Your task to perform on an android device: turn on priority inbox in the gmail app Image 0: 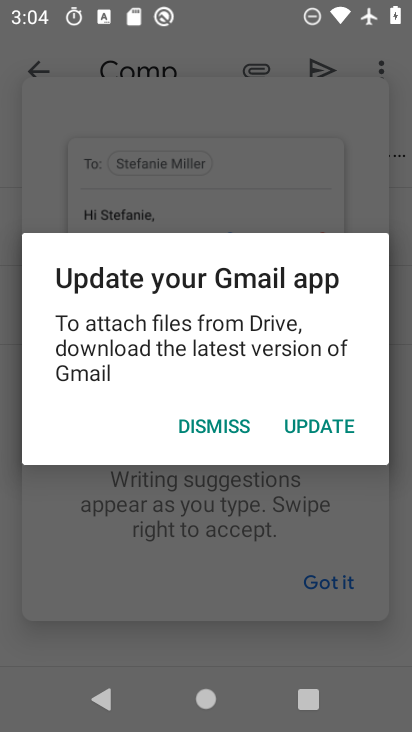
Step 0: press home button
Your task to perform on an android device: turn on priority inbox in the gmail app Image 1: 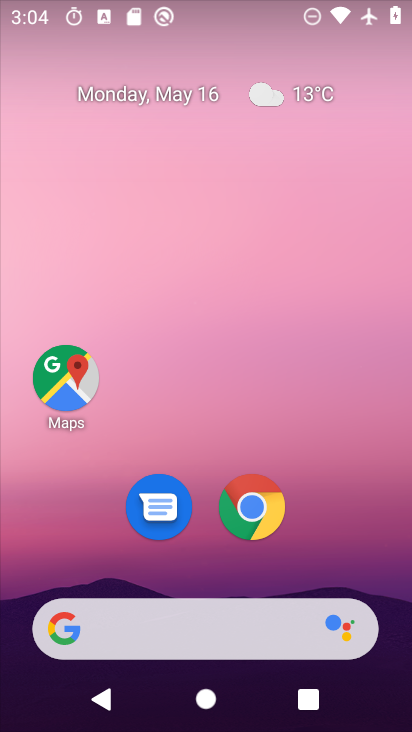
Step 1: drag from (339, 537) to (330, 145)
Your task to perform on an android device: turn on priority inbox in the gmail app Image 2: 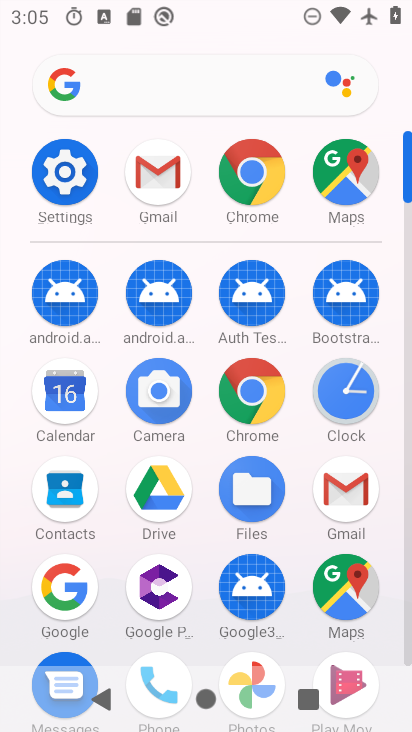
Step 2: click (351, 498)
Your task to perform on an android device: turn on priority inbox in the gmail app Image 3: 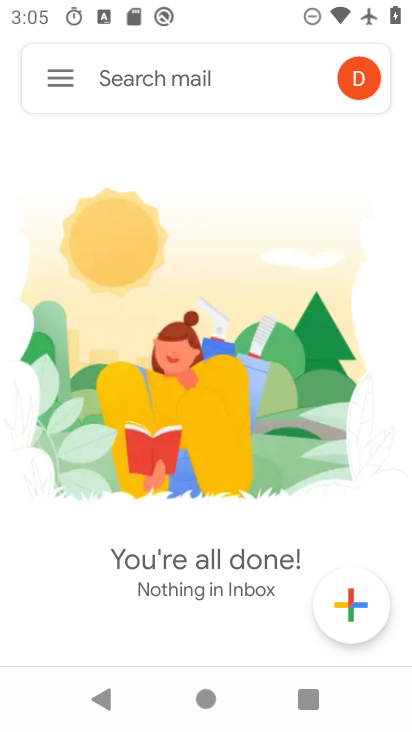
Step 3: click (61, 95)
Your task to perform on an android device: turn on priority inbox in the gmail app Image 4: 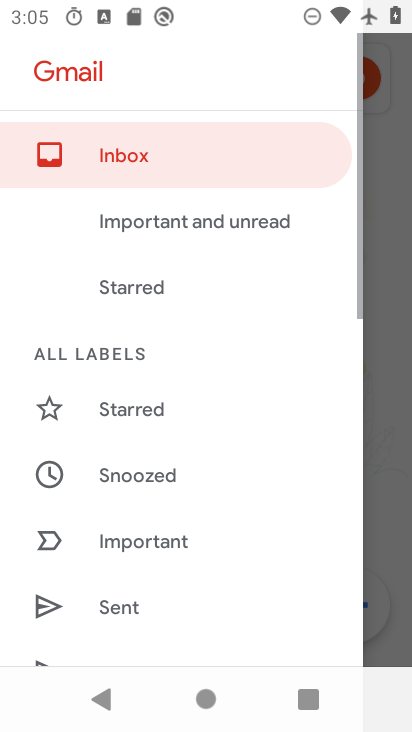
Step 4: drag from (183, 601) to (266, 183)
Your task to perform on an android device: turn on priority inbox in the gmail app Image 5: 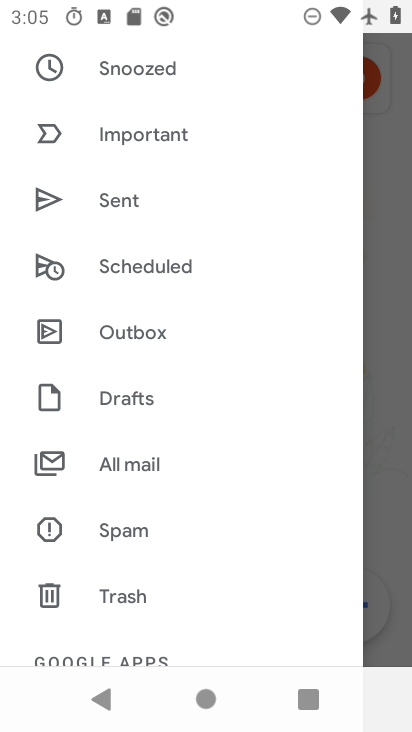
Step 5: drag from (161, 644) to (232, 306)
Your task to perform on an android device: turn on priority inbox in the gmail app Image 6: 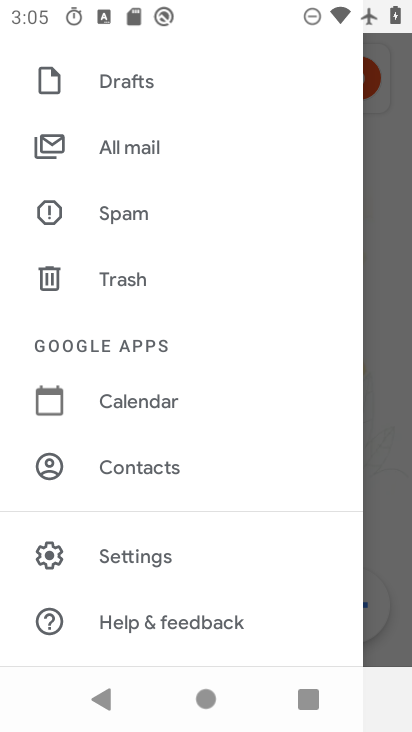
Step 6: click (206, 551)
Your task to perform on an android device: turn on priority inbox in the gmail app Image 7: 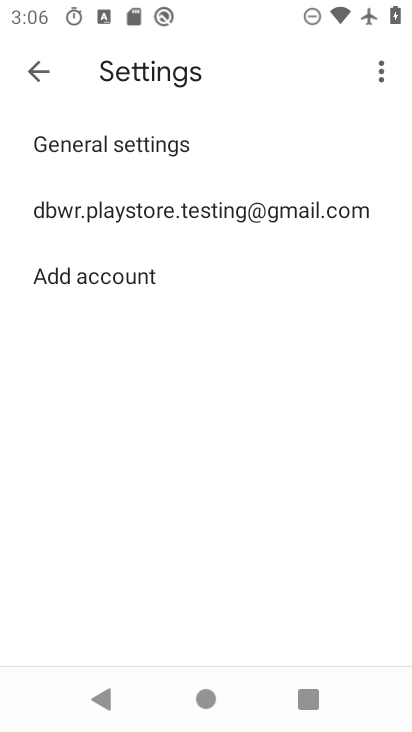
Step 7: click (198, 224)
Your task to perform on an android device: turn on priority inbox in the gmail app Image 8: 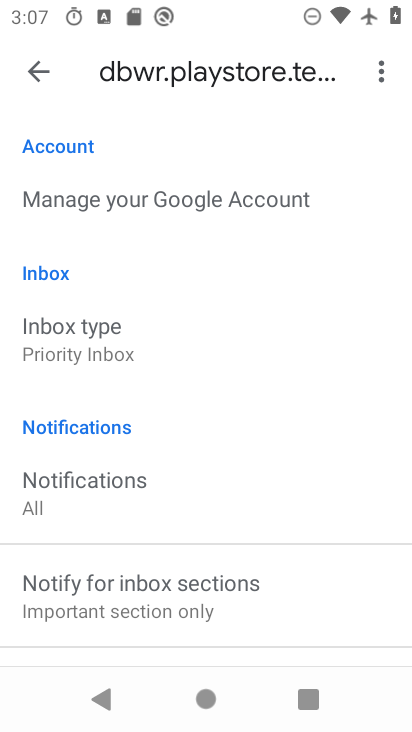
Step 8: task complete